Your task to perform on an android device: What's the price of the Samsung TV? Image 0: 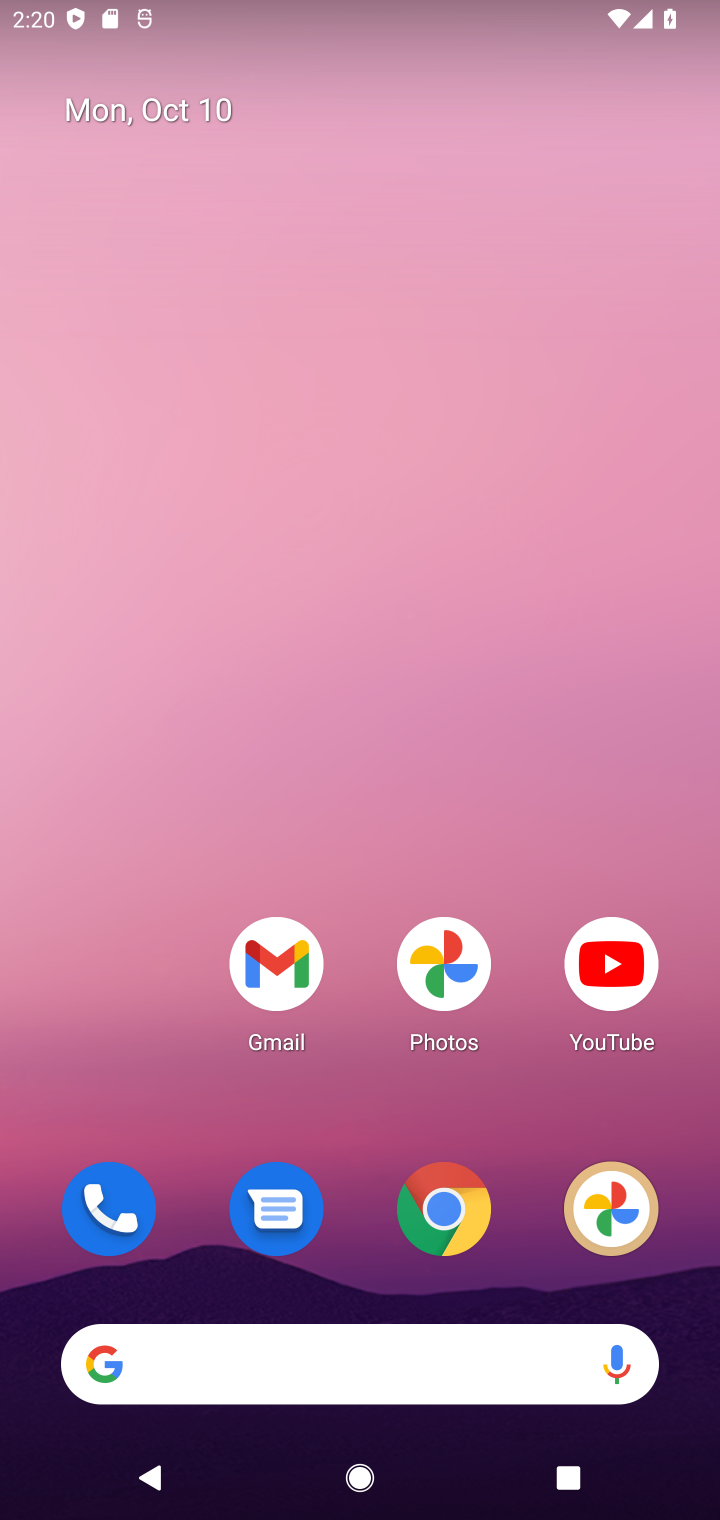
Step 0: click (445, 1211)
Your task to perform on an android device: What's the price of the Samsung TV? Image 1: 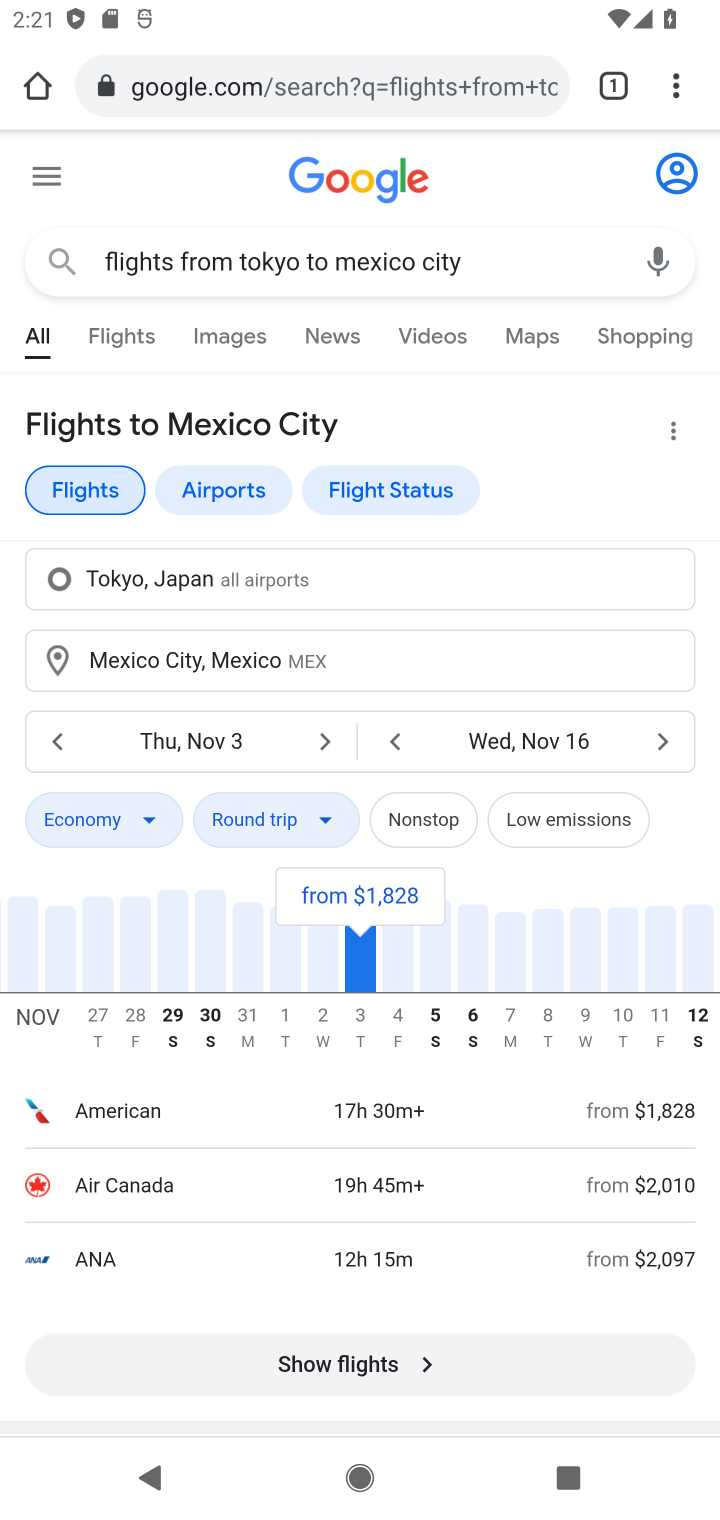
Step 1: click (488, 261)
Your task to perform on an android device: What's the price of the Samsung TV? Image 2: 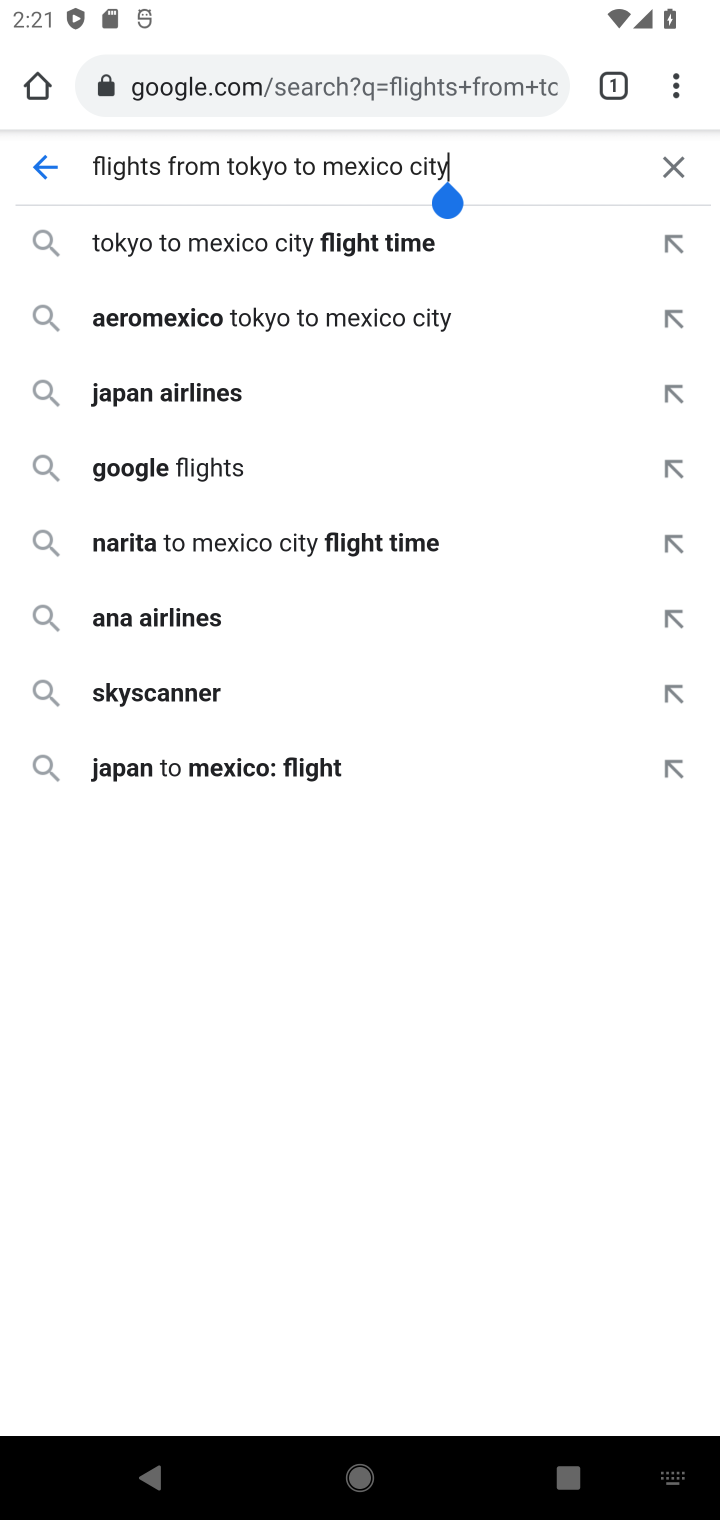
Step 2: click (664, 162)
Your task to perform on an android device: What's the price of the Samsung TV? Image 3: 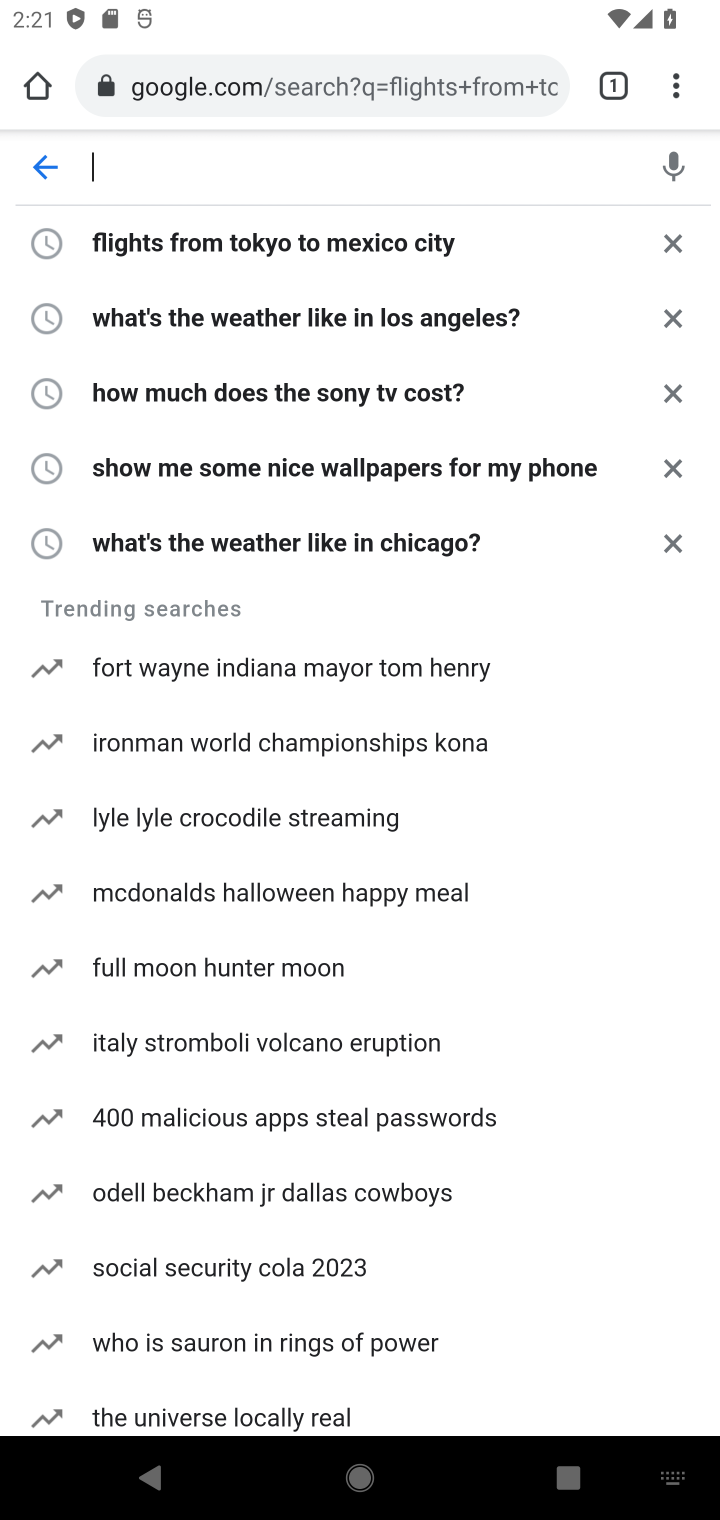
Step 3: type "What's the price of the Samsung TV?"
Your task to perform on an android device: What's the price of the Samsung TV? Image 4: 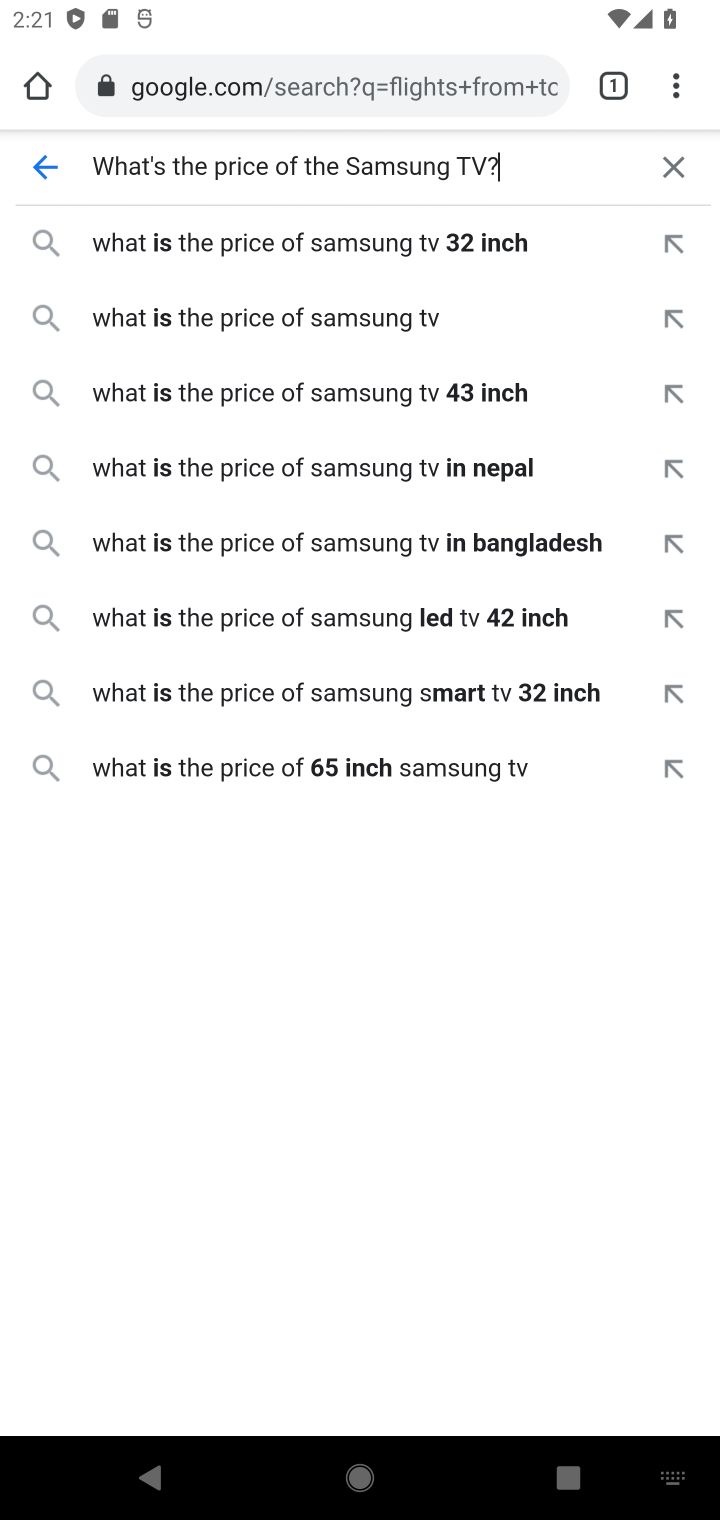
Step 4: press enter
Your task to perform on an android device: What's the price of the Samsung TV? Image 5: 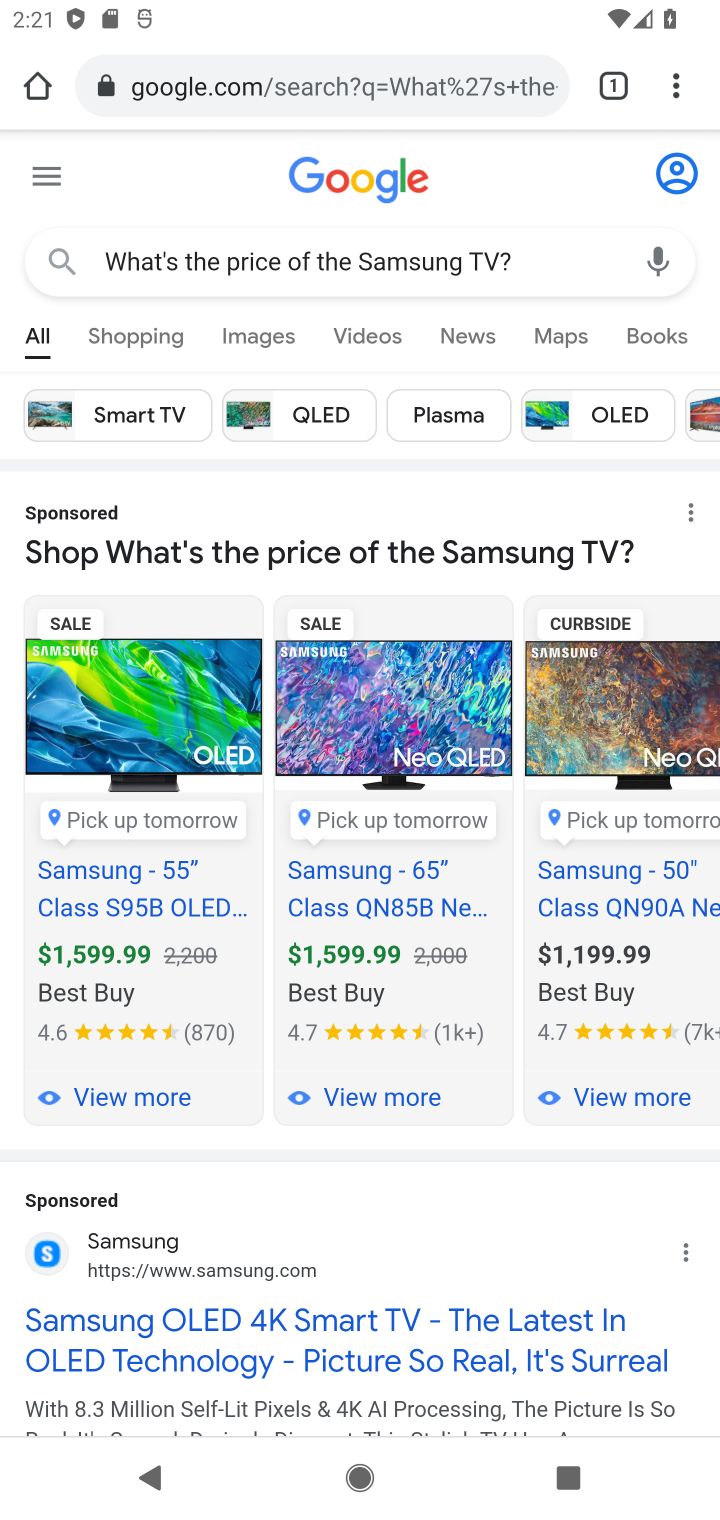
Step 5: task complete